Your task to perform on an android device: What's the weather? Image 0: 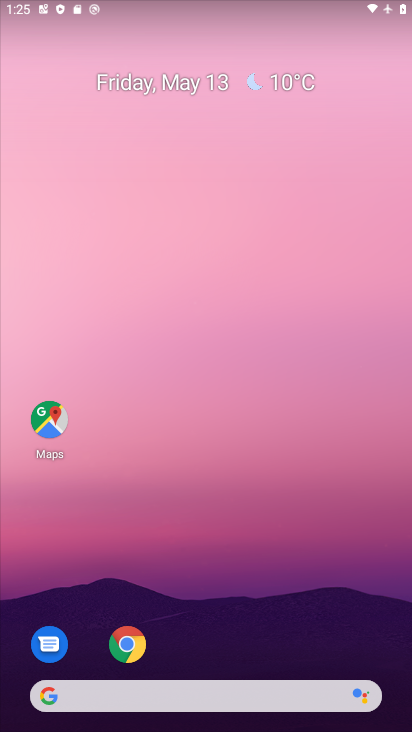
Step 0: click (249, 79)
Your task to perform on an android device: What's the weather? Image 1: 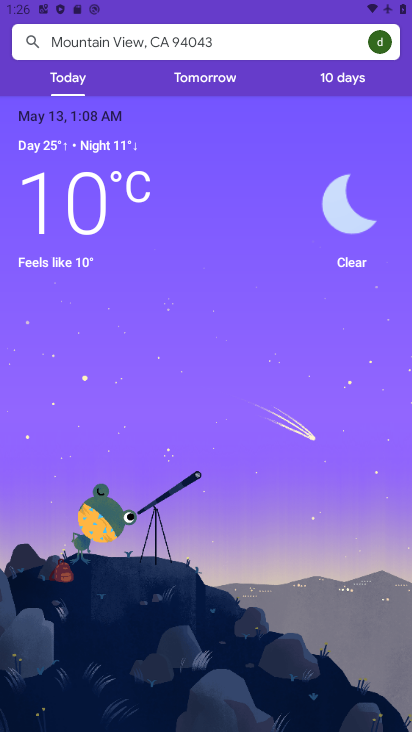
Step 1: task complete